Your task to perform on an android device: Add "bose soundlink" to the cart on walmart.com Image 0: 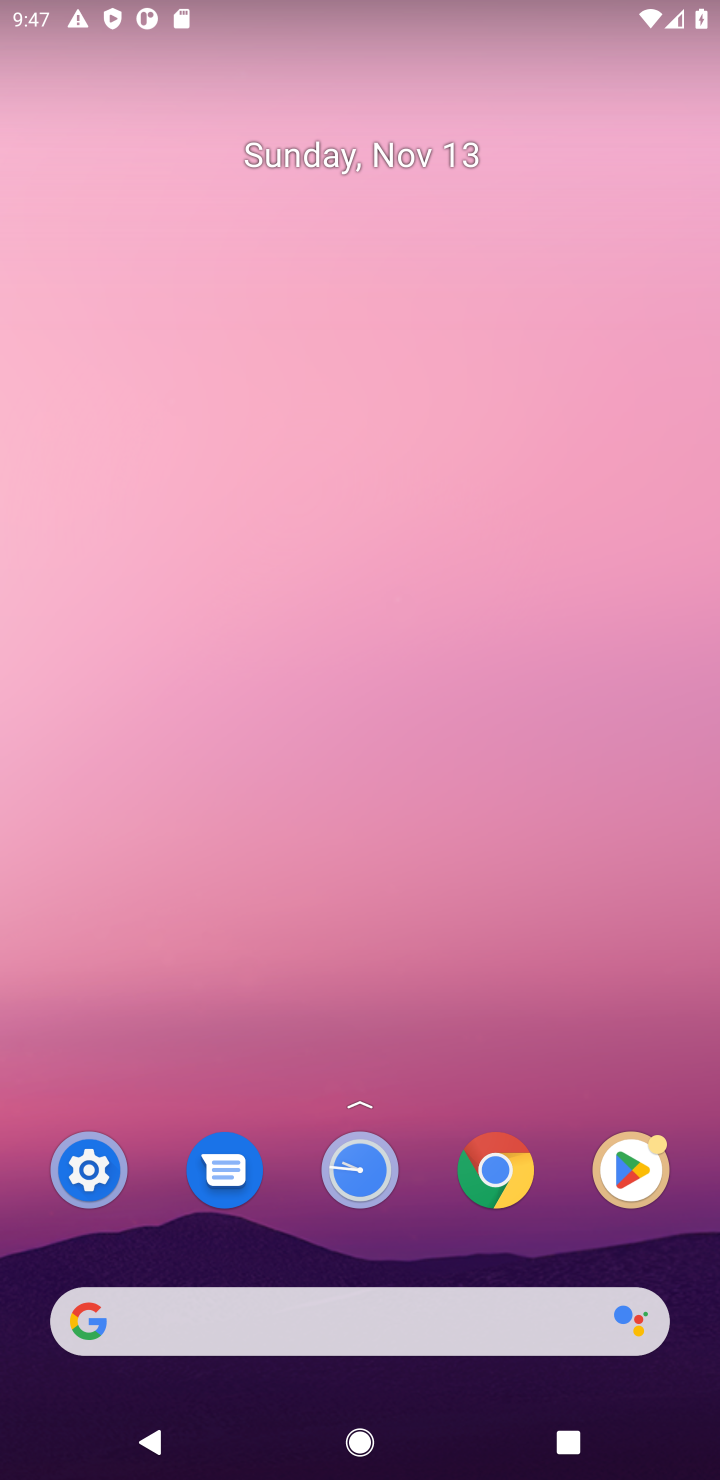
Step 0: click (359, 1331)
Your task to perform on an android device: Add "bose soundlink" to the cart on walmart.com Image 1: 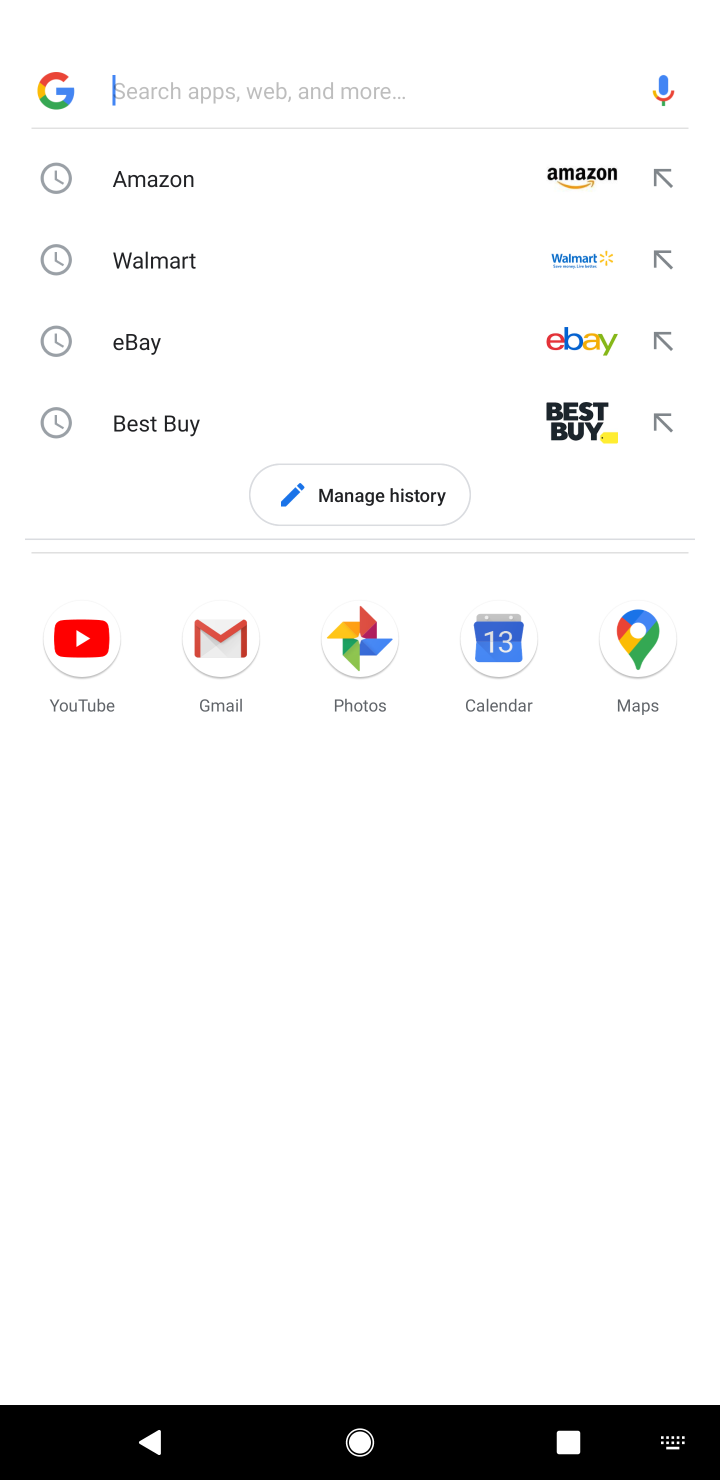
Step 1: type "walmart.com"
Your task to perform on an android device: Add "bose soundlink" to the cart on walmart.com Image 2: 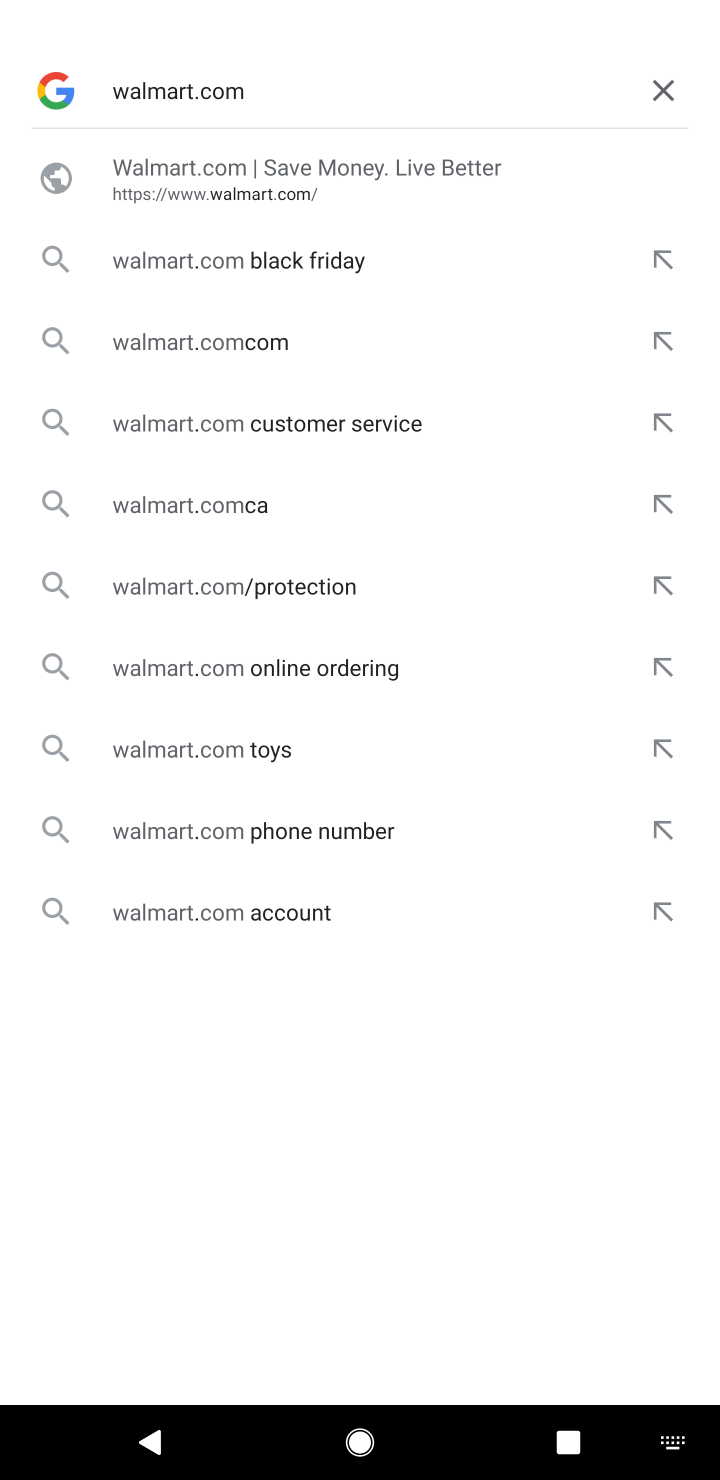
Step 2: click (335, 194)
Your task to perform on an android device: Add "bose soundlink" to the cart on walmart.com Image 3: 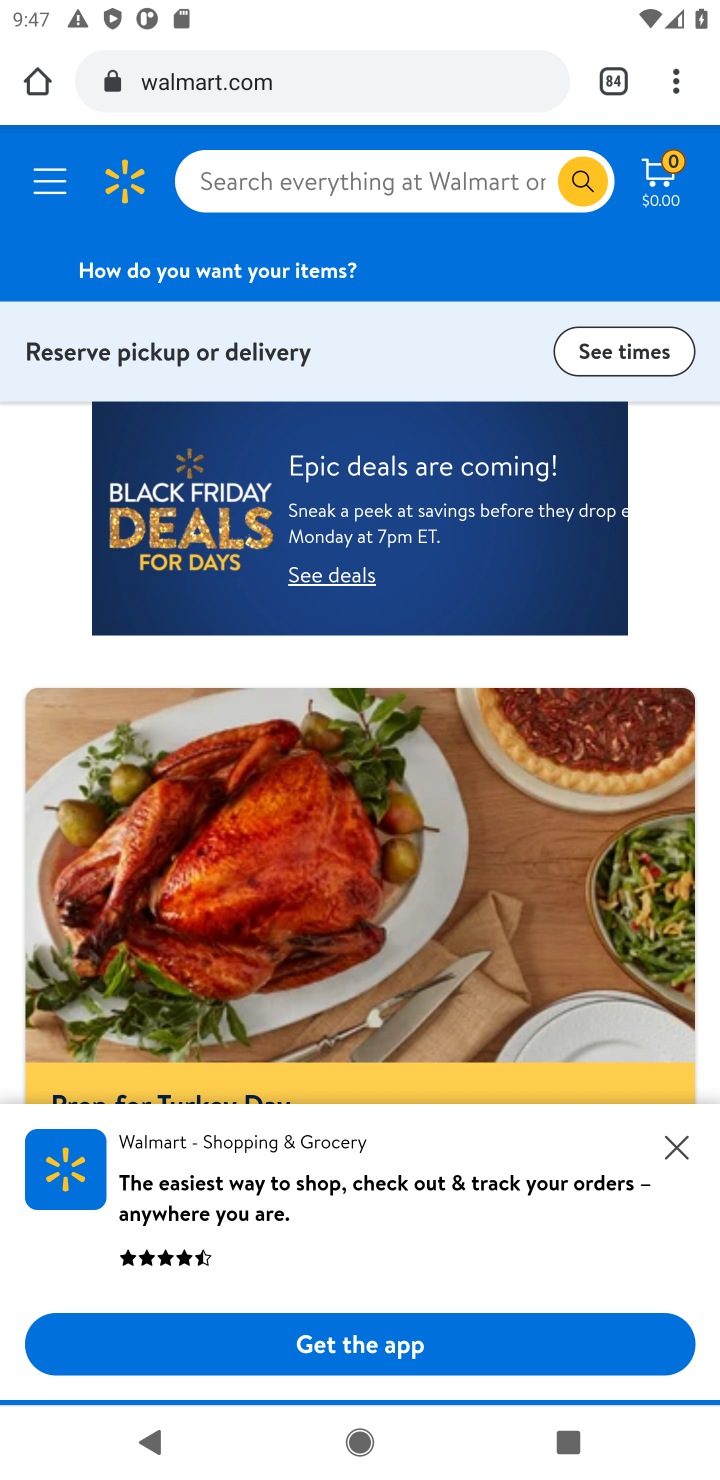
Step 3: task complete